Your task to perform on an android device: Search for vegetarian restaurants on Maps Image 0: 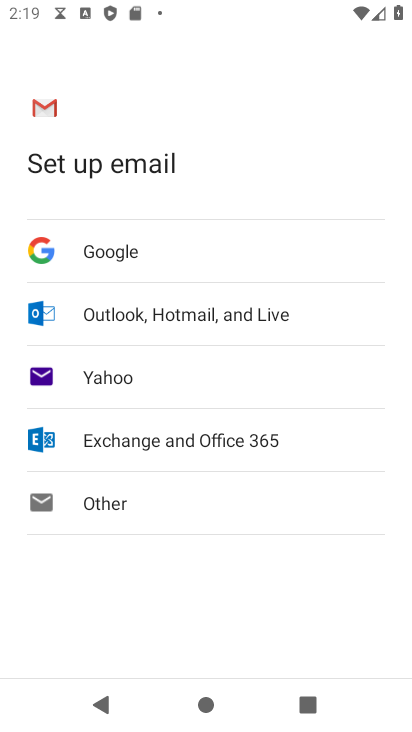
Step 0: press home button
Your task to perform on an android device: Search for vegetarian restaurants on Maps Image 1: 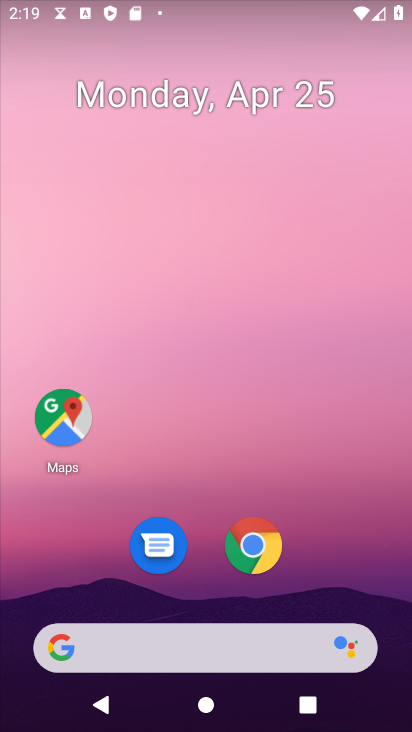
Step 1: click (72, 419)
Your task to perform on an android device: Search for vegetarian restaurants on Maps Image 2: 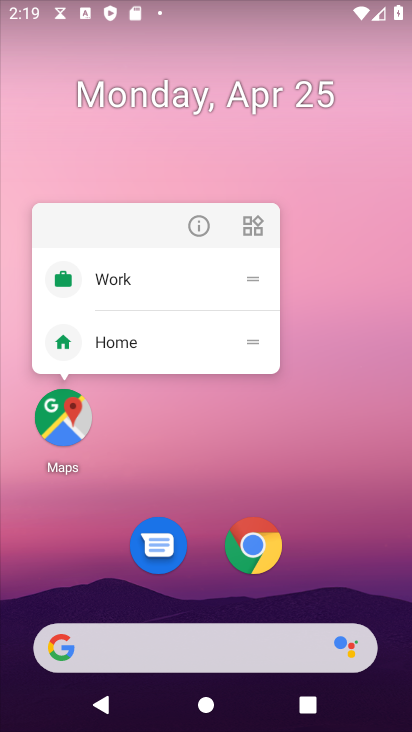
Step 2: click (28, 439)
Your task to perform on an android device: Search for vegetarian restaurants on Maps Image 3: 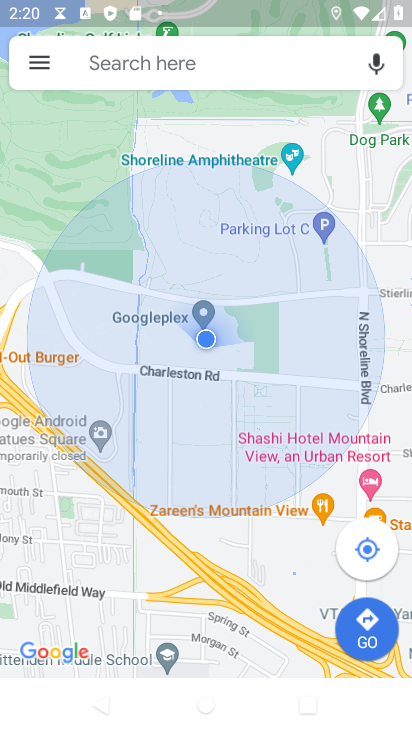
Step 3: click (161, 46)
Your task to perform on an android device: Search for vegetarian restaurants on Maps Image 4: 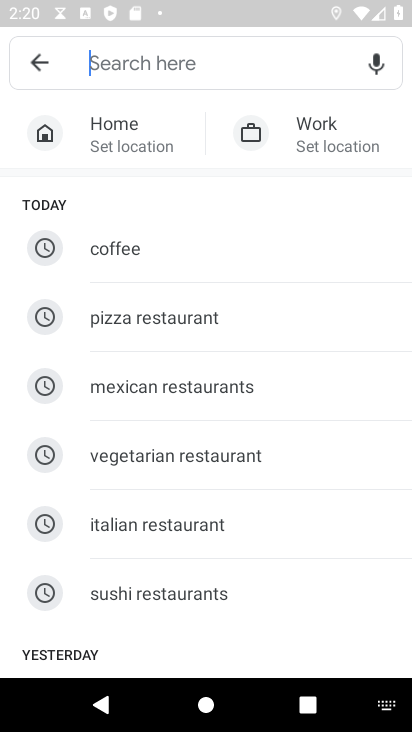
Step 4: click (159, 460)
Your task to perform on an android device: Search for vegetarian restaurants on Maps Image 5: 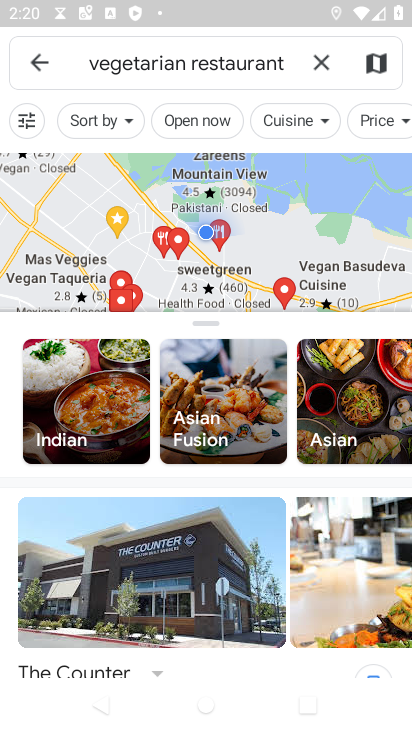
Step 5: task complete